Your task to perform on an android device: set the stopwatch Image 0: 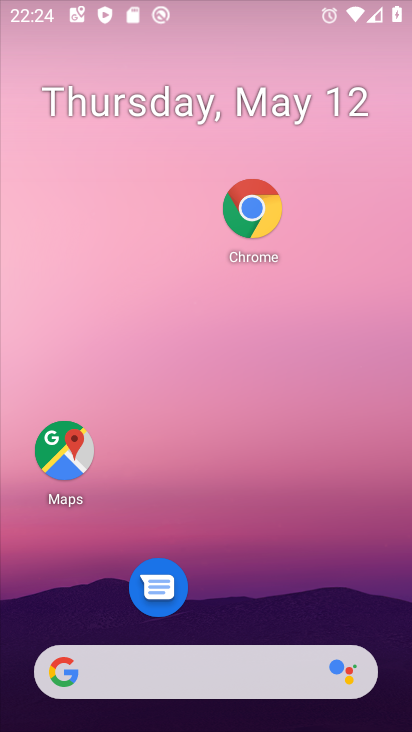
Step 0: drag from (293, 609) to (338, 247)
Your task to perform on an android device: set the stopwatch Image 1: 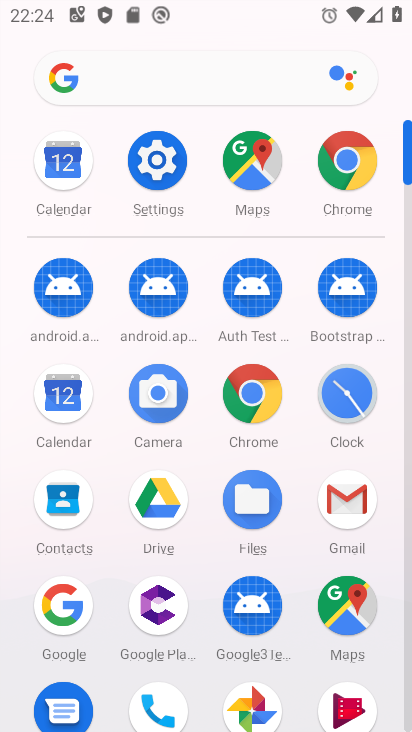
Step 1: click (344, 387)
Your task to perform on an android device: set the stopwatch Image 2: 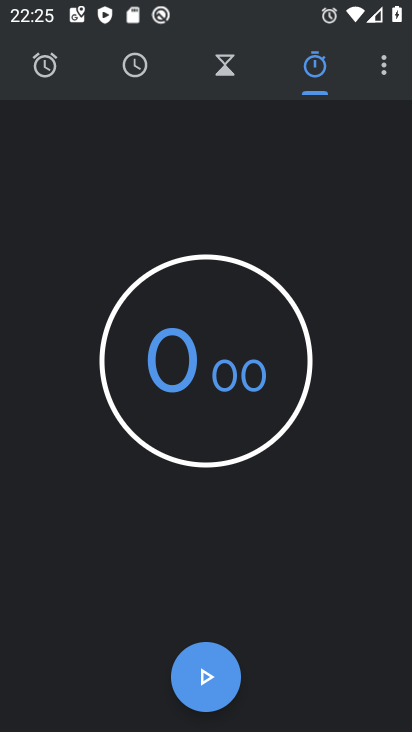
Step 2: click (189, 702)
Your task to perform on an android device: set the stopwatch Image 3: 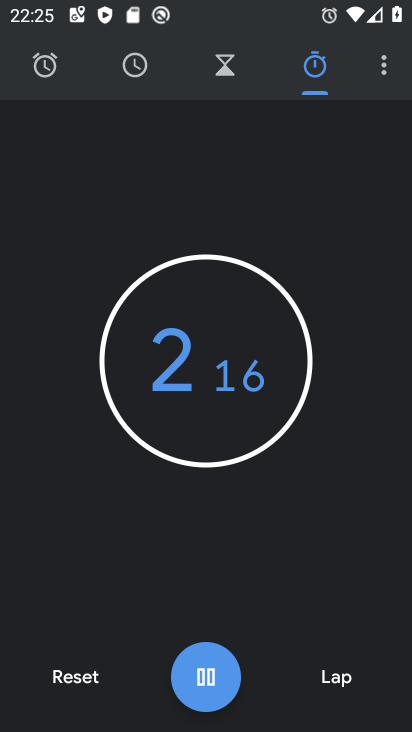
Step 3: click (191, 671)
Your task to perform on an android device: set the stopwatch Image 4: 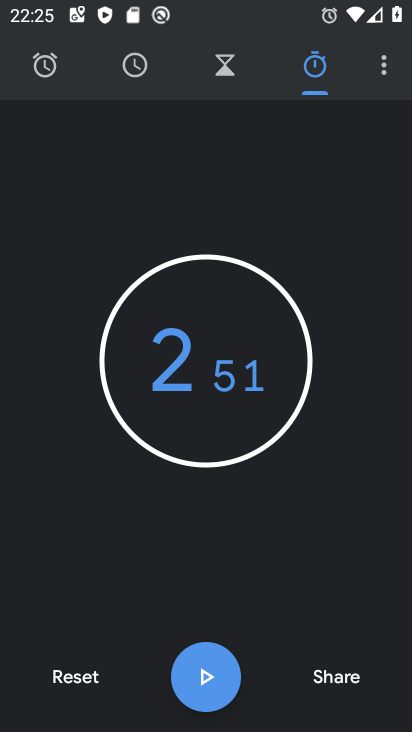
Step 4: task complete